Your task to perform on an android device: toggle priority inbox in the gmail app Image 0: 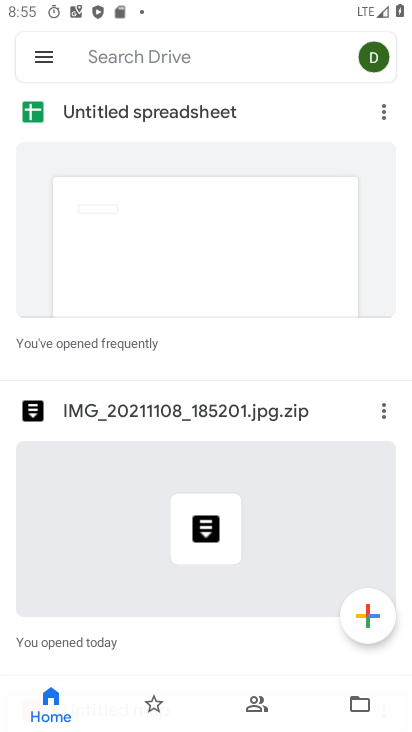
Step 0: press back button
Your task to perform on an android device: toggle priority inbox in the gmail app Image 1: 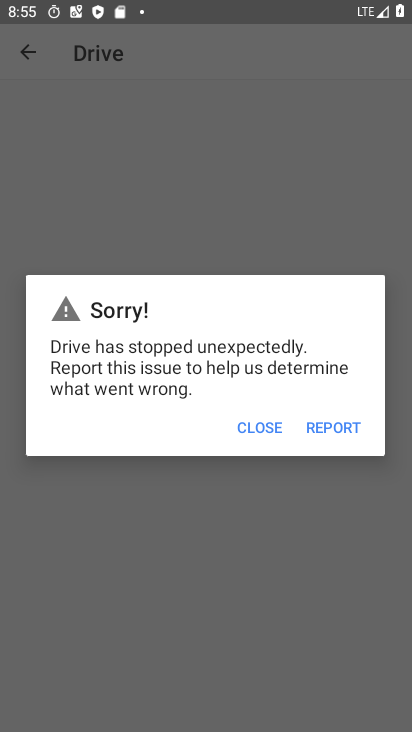
Step 1: press home button
Your task to perform on an android device: toggle priority inbox in the gmail app Image 2: 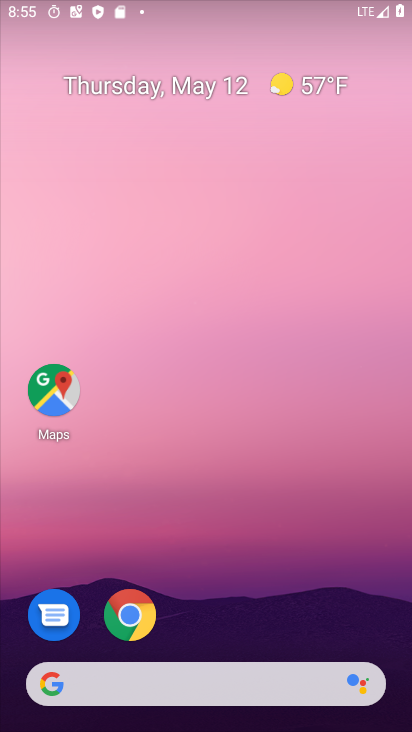
Step 2: drag from (196, 548) to (194, 46)
Your task to perform on an android device: toggle priority inbox in the gmail app Image 3: 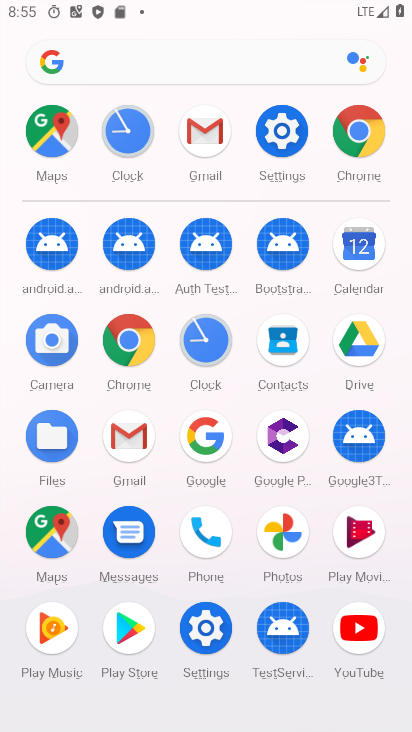
Step 3: drag from (8, 544) to (12, 200)
Your task to perform on an android device: toggle priority inbox in the gmail app Image 4: 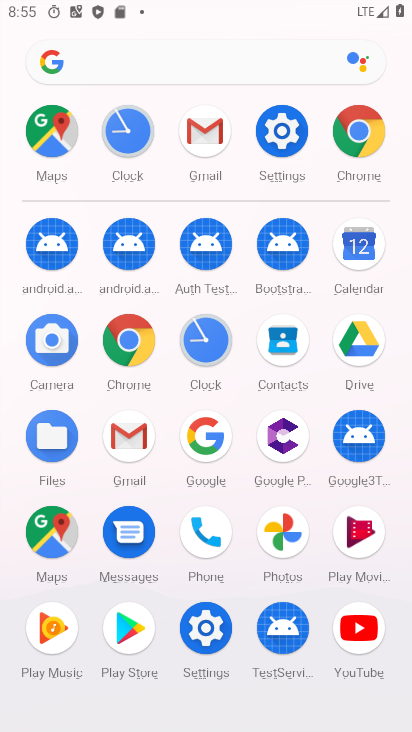
Step 4: click (128, 424)
Your task to perform on an android device: toggle priority inbox in the gmail app Image 5: 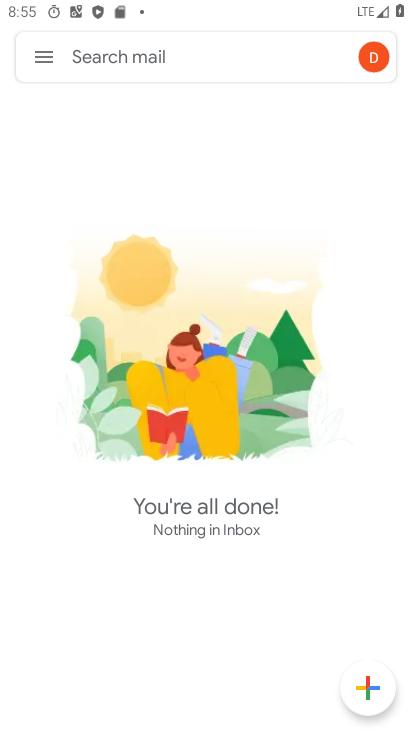
Step 5: click (33, 58)
Your task to perform on an android device: toggle priority inbox in the gmail app Image 6: 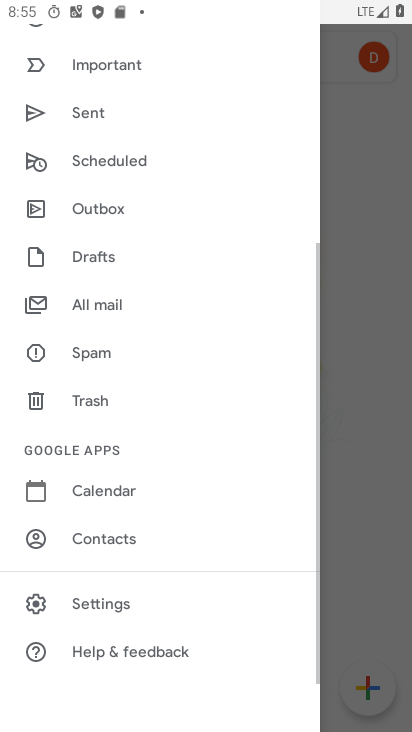
Step 6: click (131, 599)
Your task to perform on an android device: toggle priority inbox in the gmail app Image 7: 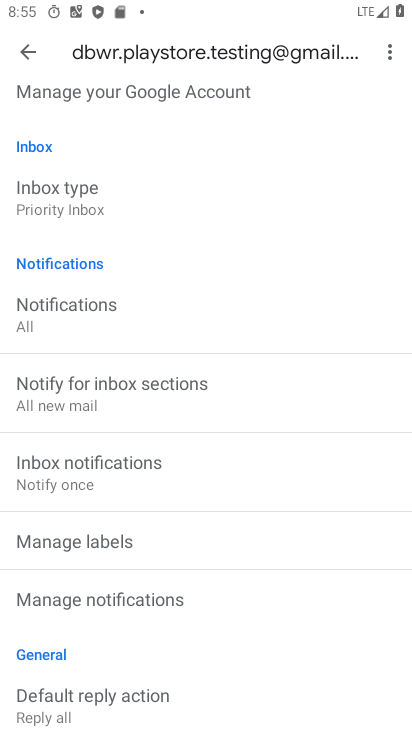
Step 7: drag from (246, 484) to (266, 131)
Your task to perform on an android device: toggle priority inbox in the gmail app Image 8: 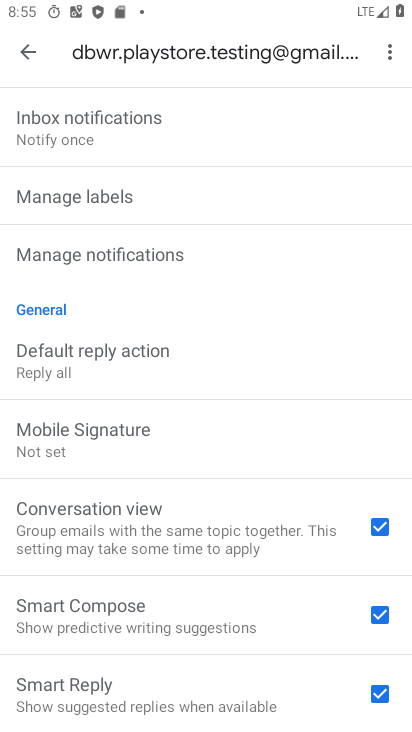
Step 8: drag from (195, 176) to (223, 523)
Your task to perform on an android device: toggle priority inbox in the gmail app Image 9: 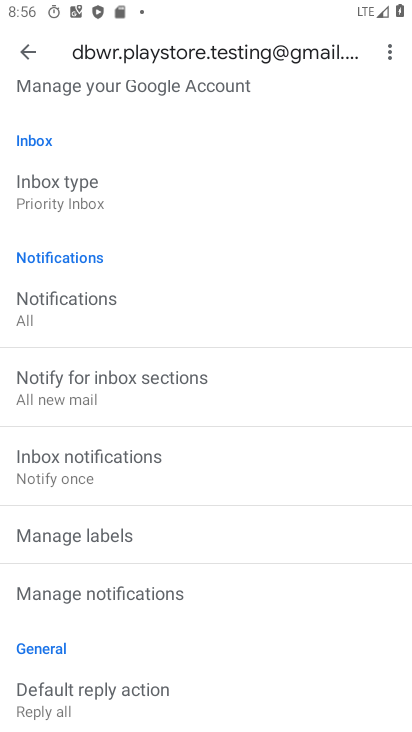
Step 9: click (122, 190)
Your task to perform on an android device: toggle priority inbox in the gmail app Image 10: 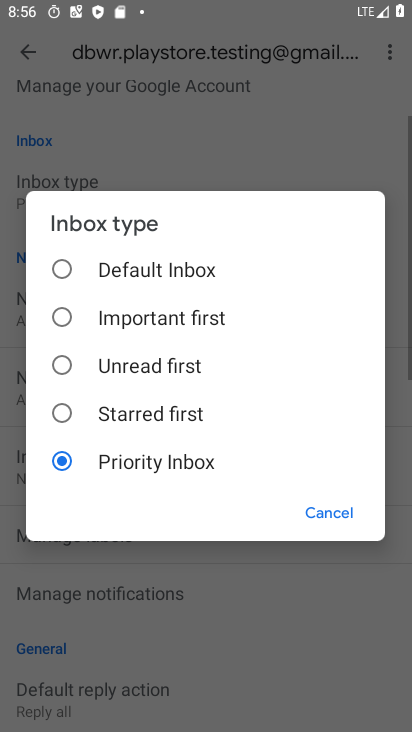
Step 10: click (140, 288)
Your task to perform on an android device: toggle priority inbox in the gmail app Image 11: 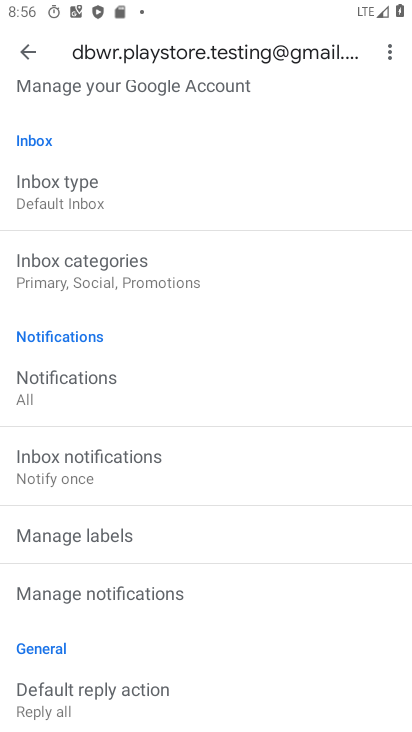
Step 11: click (136, 190)
Your task to perform on an android device: toggle priority inbox in the gmail app Image 12: 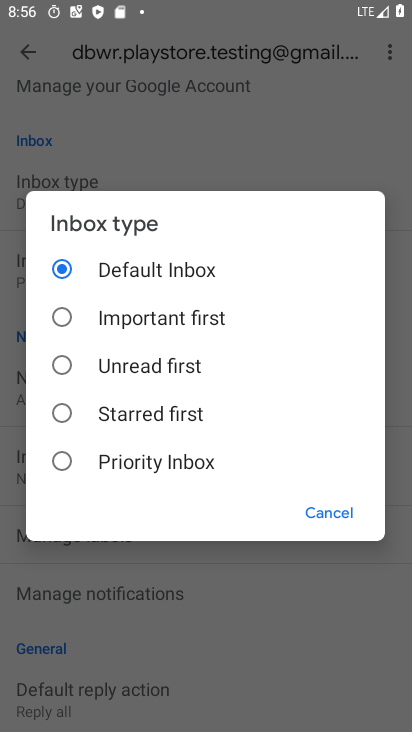
Step 12: click (79, 444)
Your task to perform on an android device: toggle priority inbox in the gmail app Image 13: 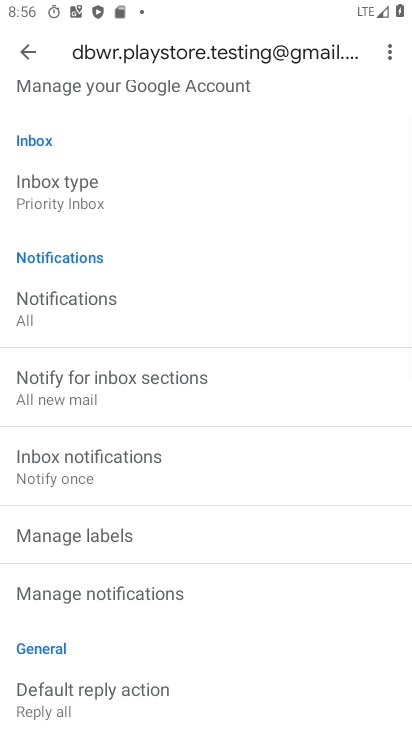
Step 13: task complete